Your task to perform on an android device: Open Google Chrome and click the shortcut for Amazon.com Image 0: 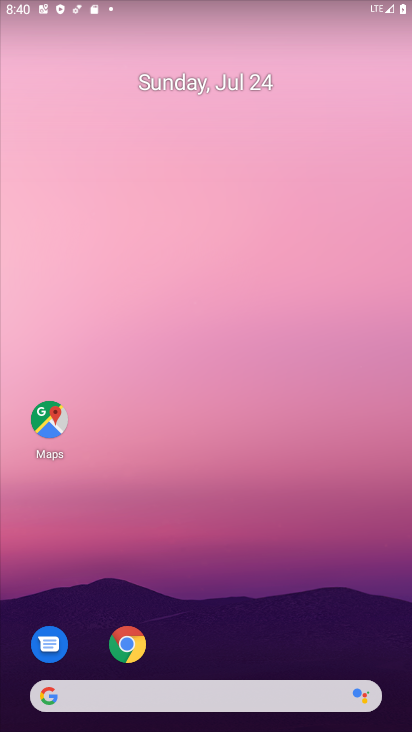
Step 0: click (122, 648)
Your task to perform on an android device: Open Google Chrome and click the shortcut for Amazon.com Image 1: 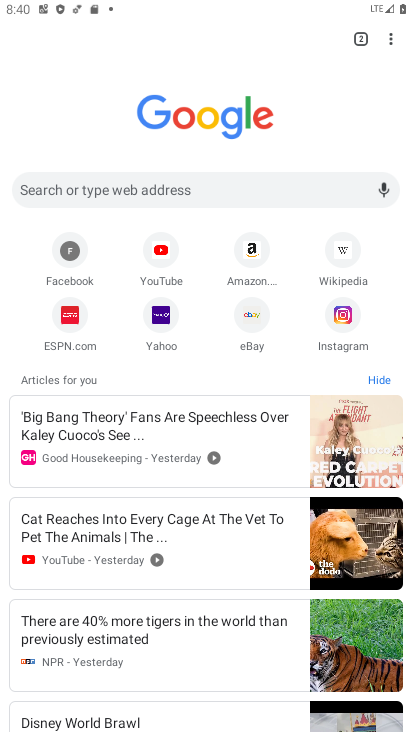
Step 1: click (252, 241)
Your task to perform on an android device: Open Google Chrome and click the shortcut for Amazon.com Image 2: 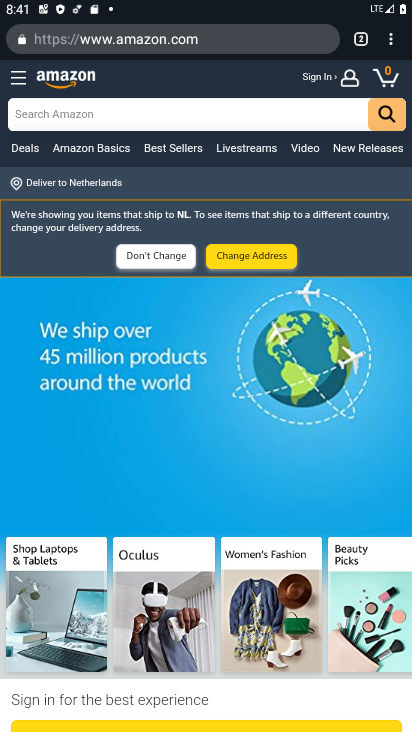
Step 2: task complete